Your task to perform on an android device: Open Youtube and go to the subscriptions tab Image 0: 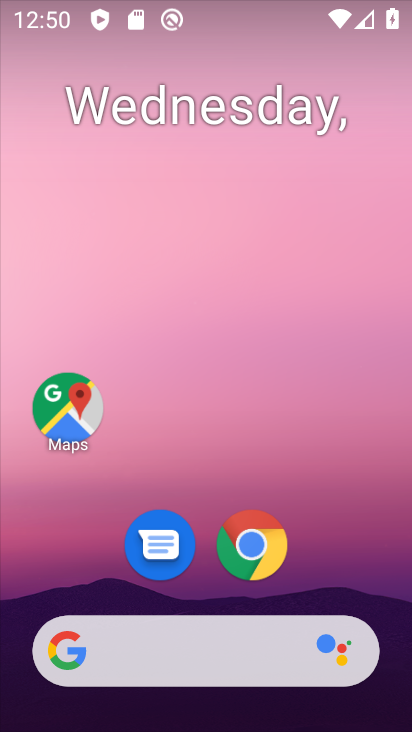
Step 0: drag from (310, 556) to (321, 113)
Your task to perform on an android device: Open Youtube and go to the subscriptions tab Image 1: 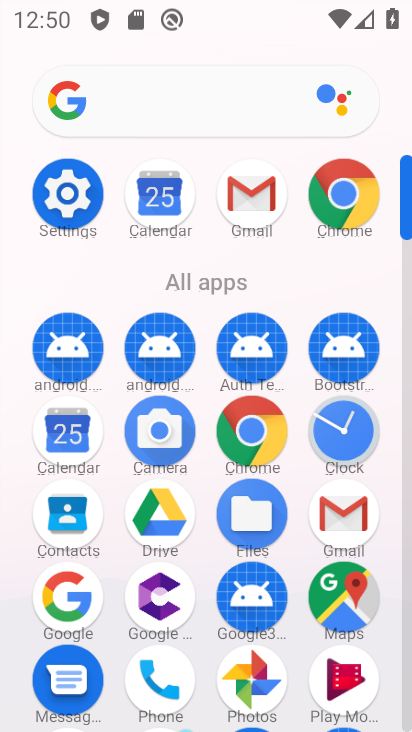
Step 1: drag from (211, 617) to (270, 221)
Your task to perform on an android device: Open Youtube and go to the subscriptions tab Image 2: 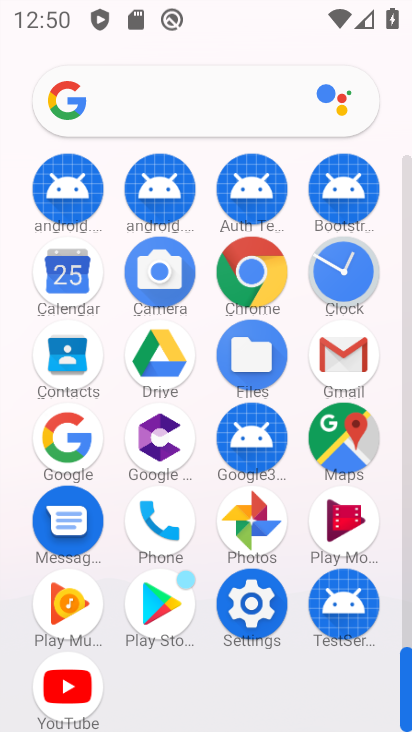
Step 2: click (75, 681)
Your task to perform on an android device: Open Youtube and go to the subscriptions tab Image 3: 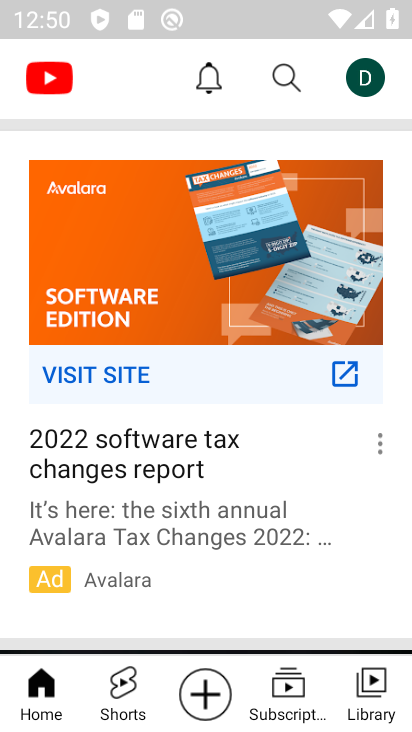
Step 3: click (264, 709)
Your task to perform on an android device: Open Youtube and go to the subscriptions tab Image 4: 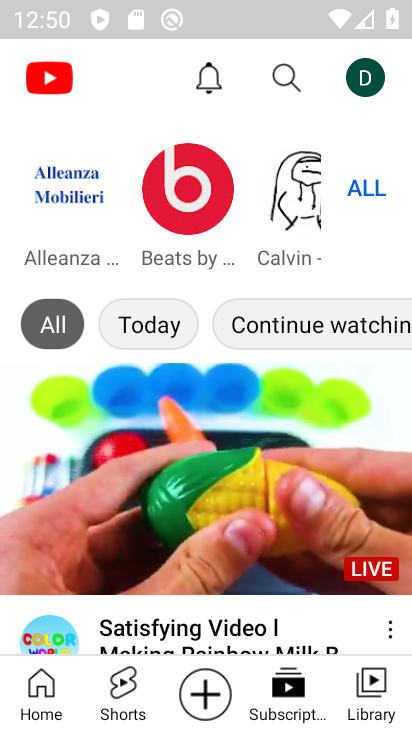
Step 4: task complete